Your task to perform on an android device: Add razer thresher to the cart on ebay.com, then select checkout. Image 0: 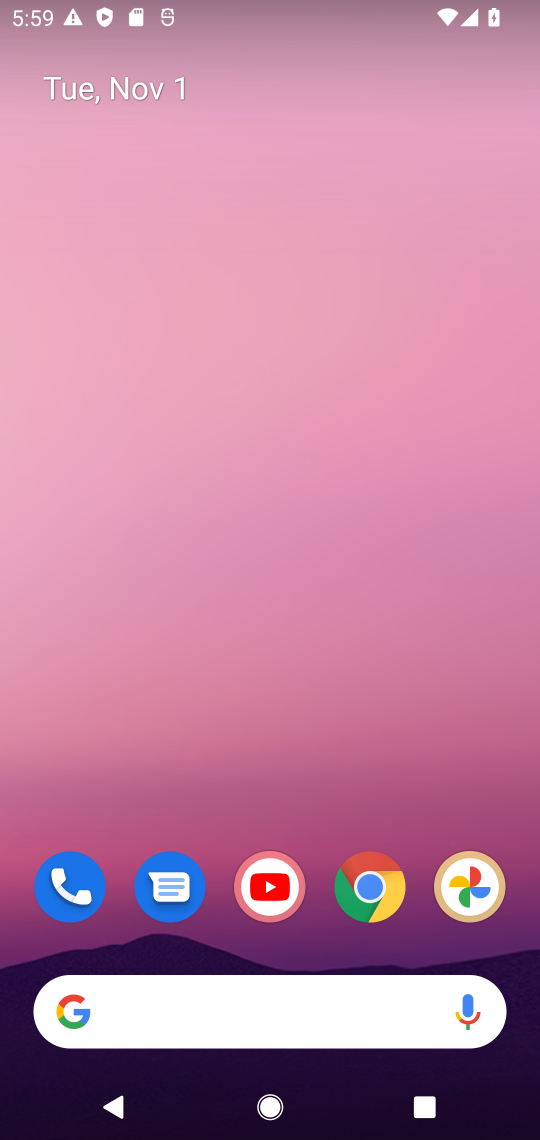
Step 0: drag from (315, 846) to (335, 100)
Your task to perform on an android device: Add razer thresher to the cart on ebay.com, then select checkout. Image 1: 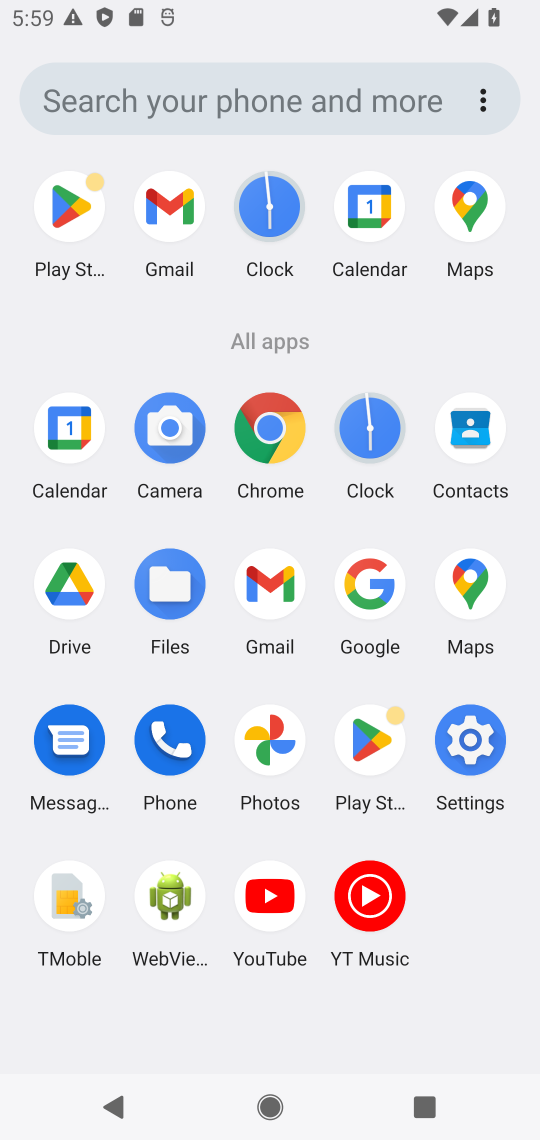
Step 1: click (268, 416)
Your task to perform on an android device: Add razer thresher to the cart on ebay.com, then select checkout. Image 2: 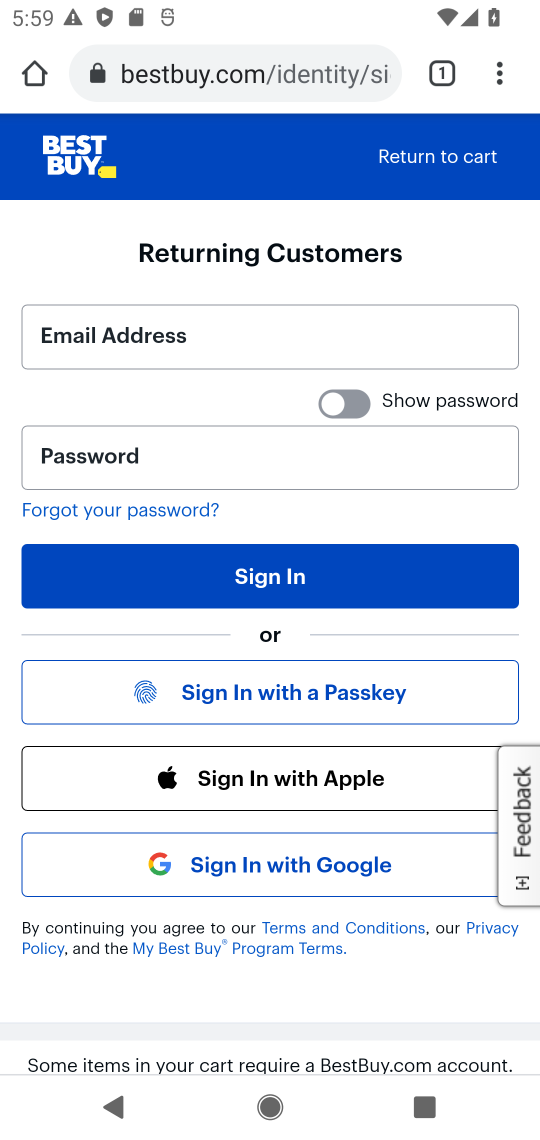
Step 2: click (243, 66)
Your task to perform on an android device: Add razer thresher to the cart on ebay.com, then select checkout. Image 3: 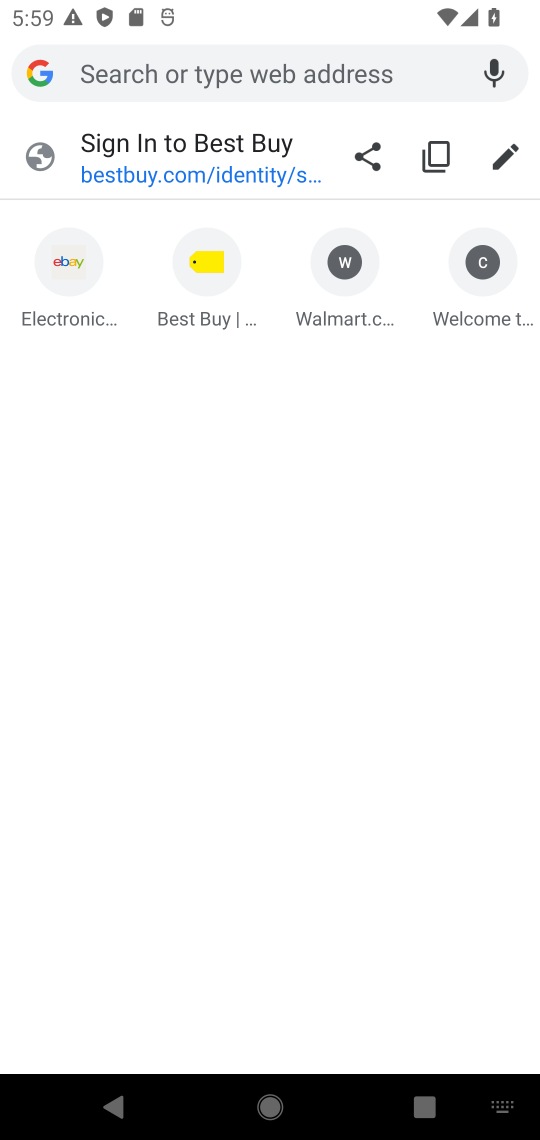
Step 3: type "ebay.com"
Your task to perform on an android device: Add razer thresher to the cart on ebay.com, then select checkout. Image 4: 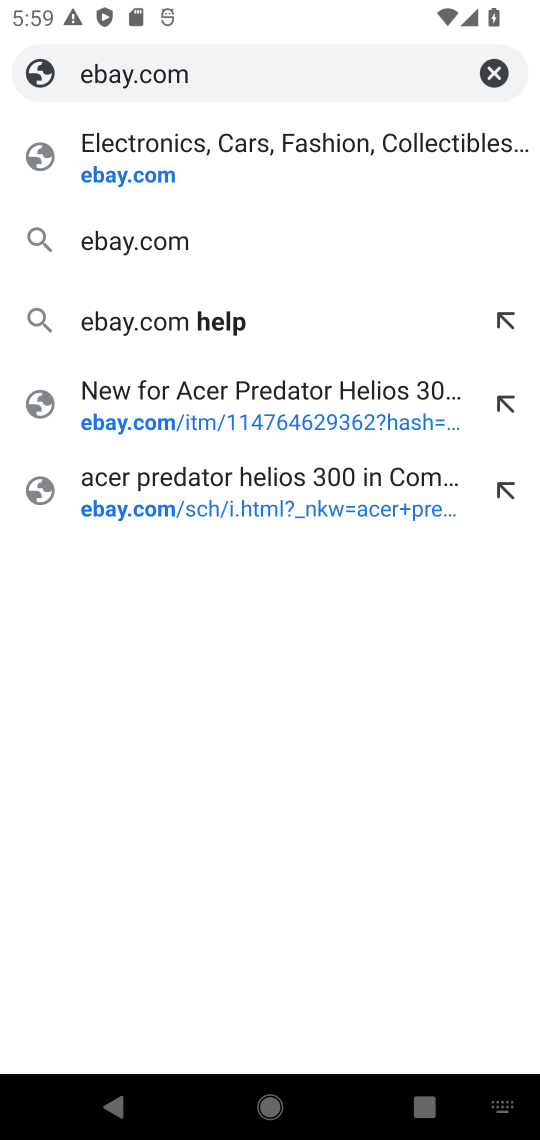
Step 4: click (160, 174)
Your task to perform on an android device: Add razer thresher to the cart on ebay.com, then select checkout. Image 5: 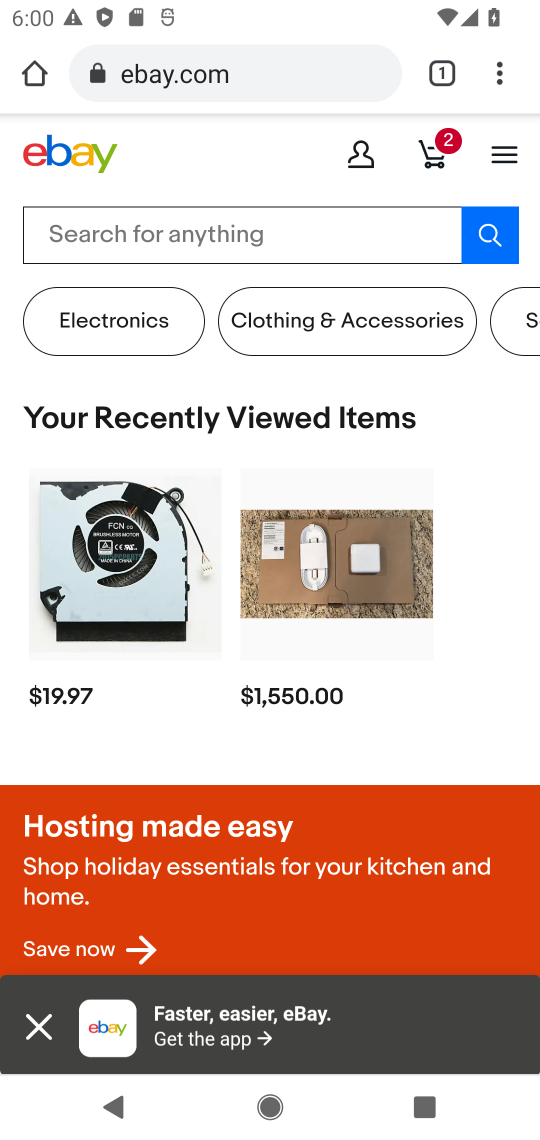
Step 5: click (169, 228)
Your task to perform on an android device: Add razer thresher to the cart on ebay.com, then select checkout. Image 6: 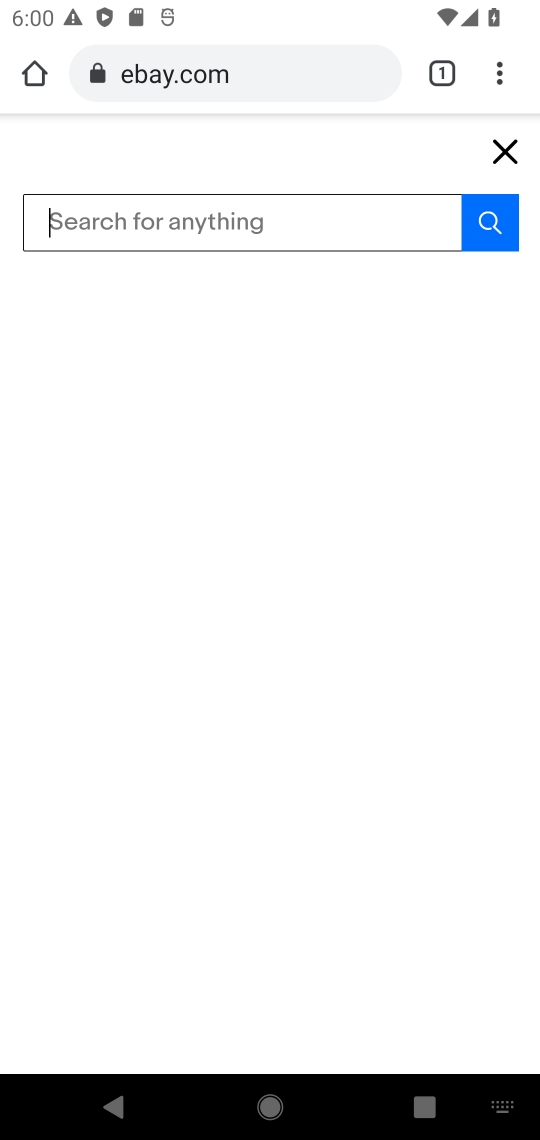
Step 6: type "razer thresher"
Your task to perform on an android device: Add razer thresher to the cart on ebay.com, then select checkout. Image 7: 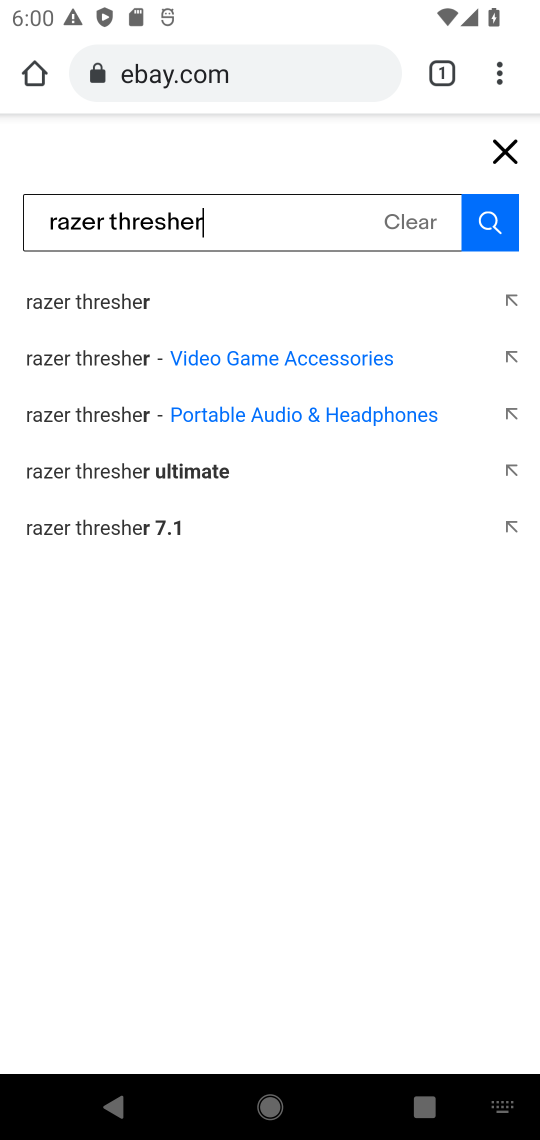
Step 7: click (163, 299)
Your task to perform on an android device: Add razer thresher to the cart on ebay.com, then select checkout. Image 8: 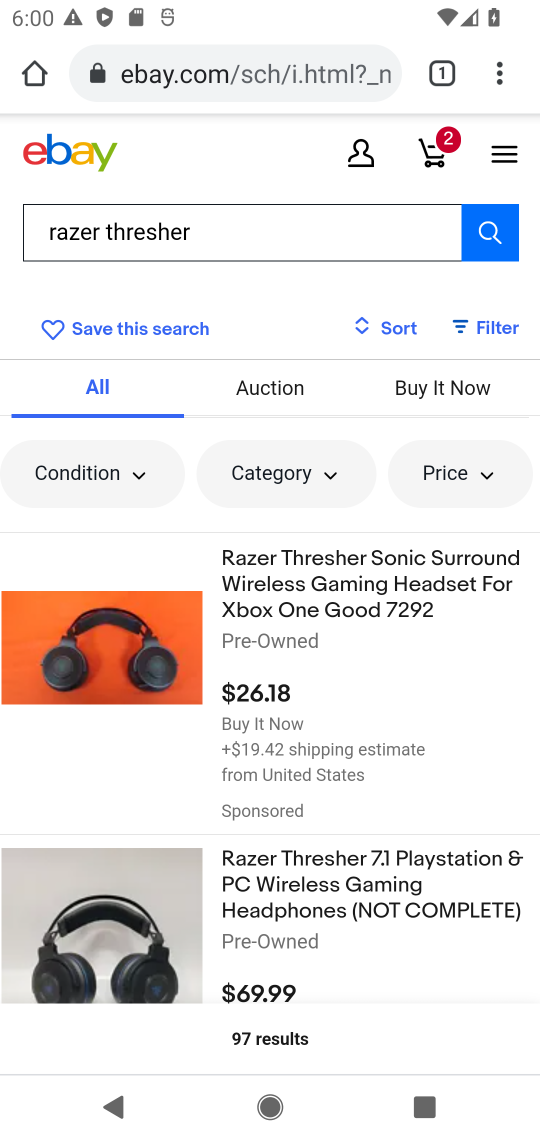
Step 8: click (301, 564)
Your task to perform on an android device: Add razer thresher to the cart on ebay.com, then select checkout. Image 9: 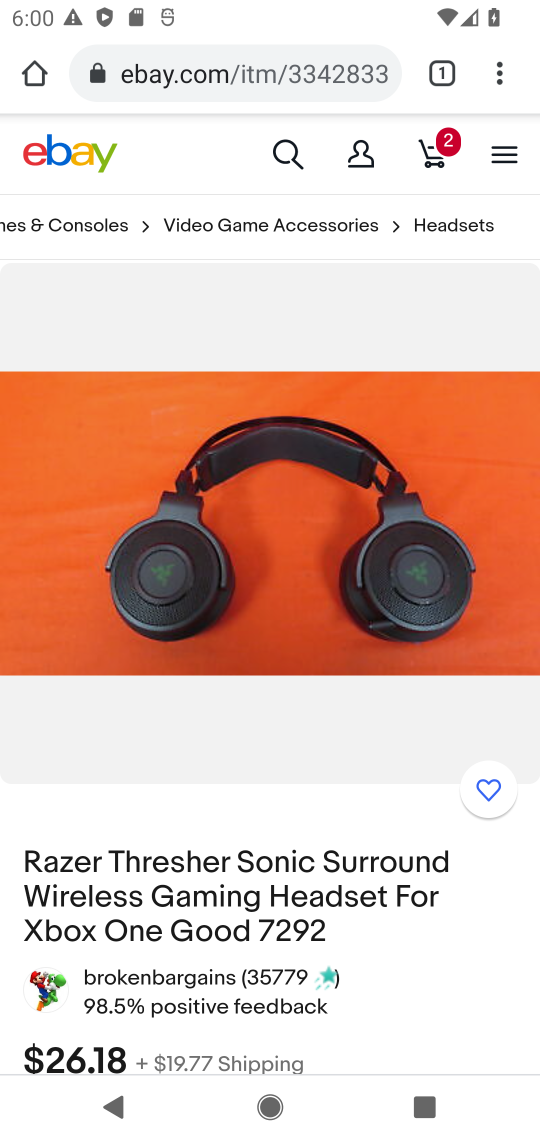
Step 9: drag from (360, 929) to (373, 347)
Your task to perform on an android device: Add razer thresher to the cart on ebay.com, then select checkout. Image 10: 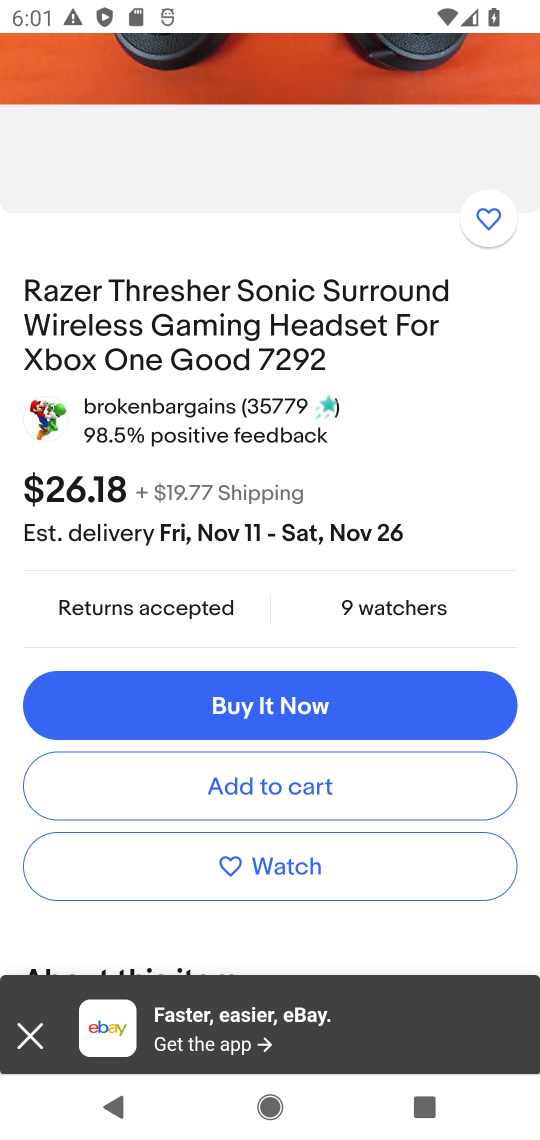
Step 10: click (268, 781)
Your task to perform on an android device: Add razer thresher to the cart on ebay.com, then select checkout. Image 11: 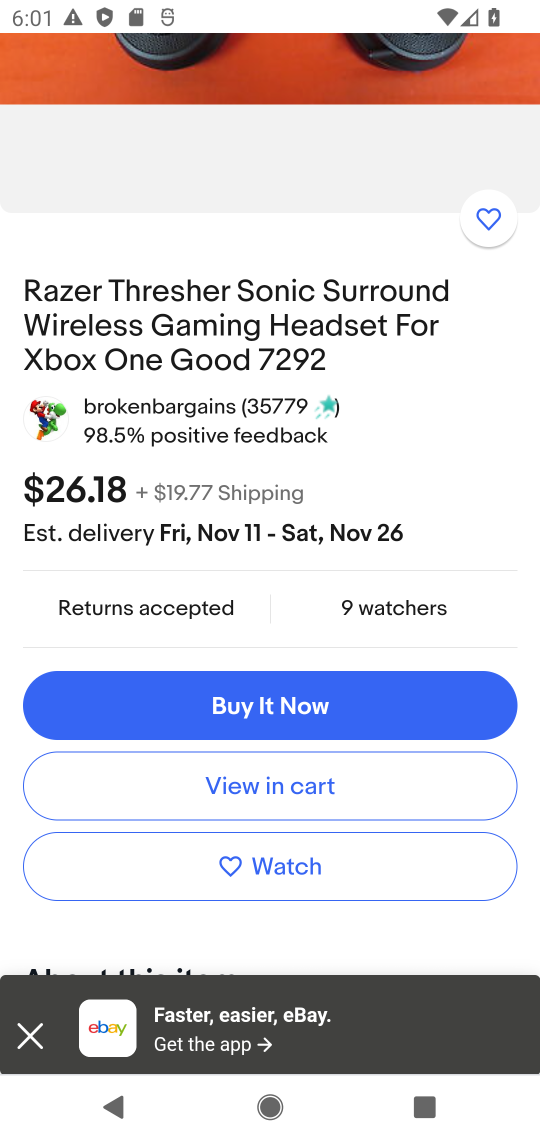
Step 11: click (268, 773)
Your task to perform on an android device: Add razer thresher to the cart on ebay.com, then select checkout. Image 12: 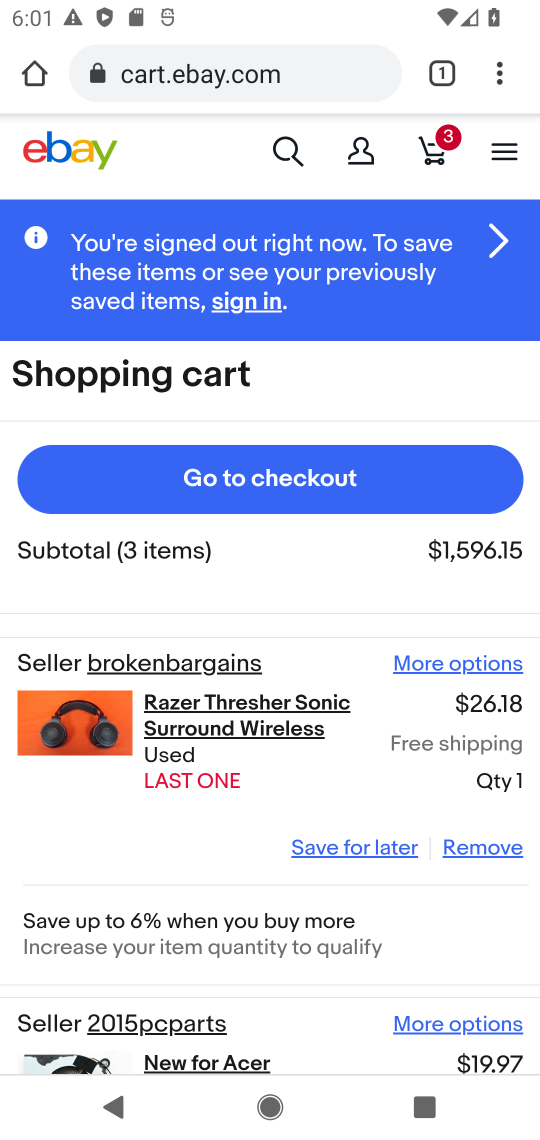
Step 12: click (267, 489)
Your task to perform on an android device: Add razer thresher to the cart on ebay.com, then select checkout. Image 13: 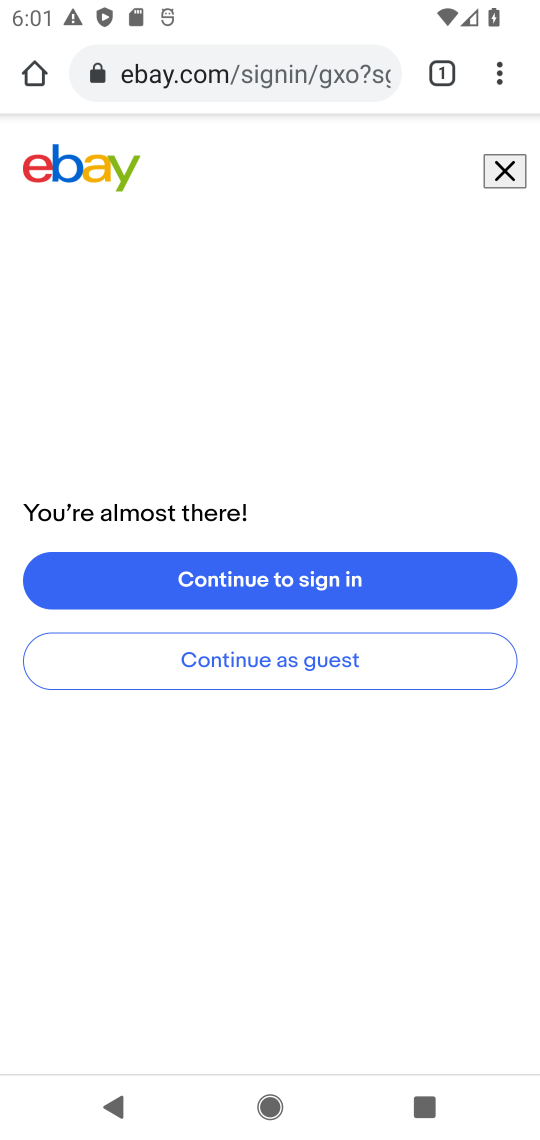
Step 13: task complete